Your task to perform on an android device: Empty the shopping cart on bestbuy.com. Search for "macbook air" on bestbuy.com, select the first entry, and add it to the cart. Image 0: 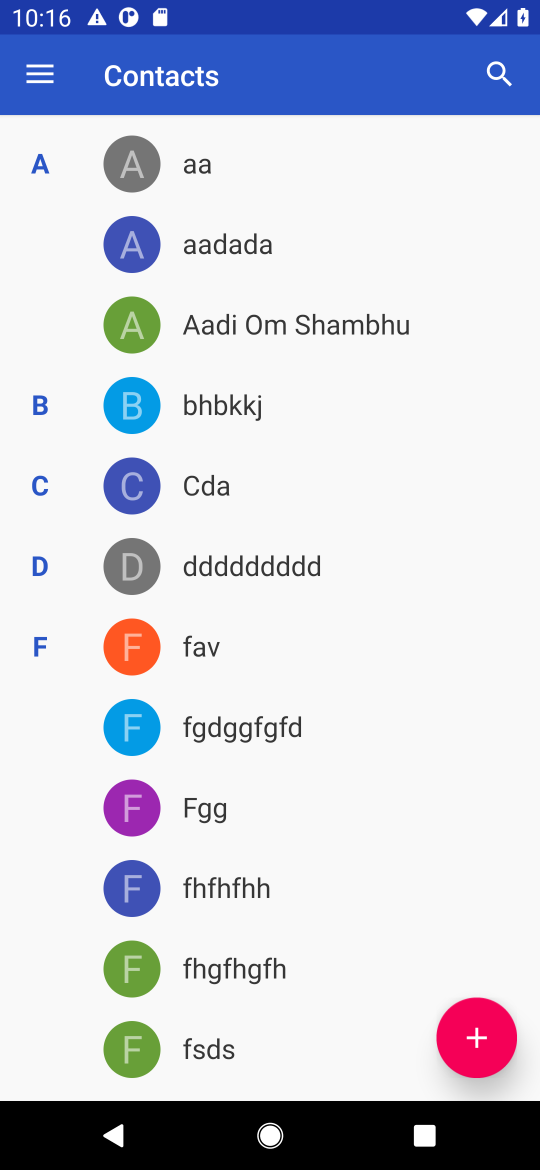
Step 0: press home button
Your task to perform on an android device: Empty the shopping cart on bestbuy.com. Search for "macbook air" on bestbuy.com, select the first entry, and add it to the cart. Image 1: 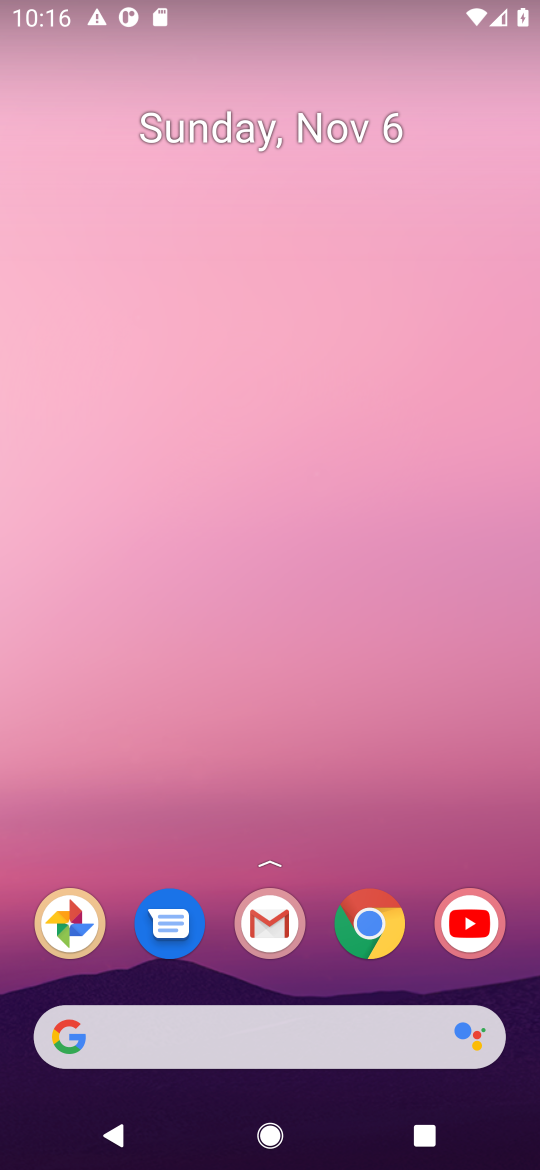
Step 1: click (370, 934)
Your task to perform on an android device: Empty the shopping cart on bestbuy.com. Search for "macbook air" on bestbuy.com, select the first entry, and add it to the cart. Image 2: 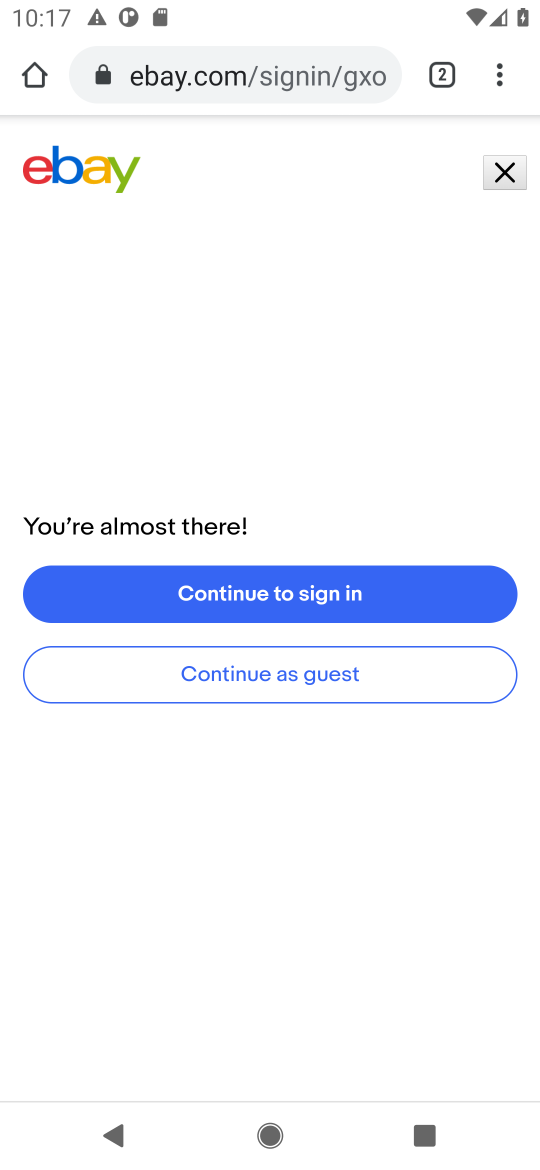
Step 2: click (219, 80)
Your task to perform on an android device: Empty the shopping cart on bestbuy.com. Search for "macbook air" on bestbuy.com, select the first entry, and add it to the cart. Image 3: 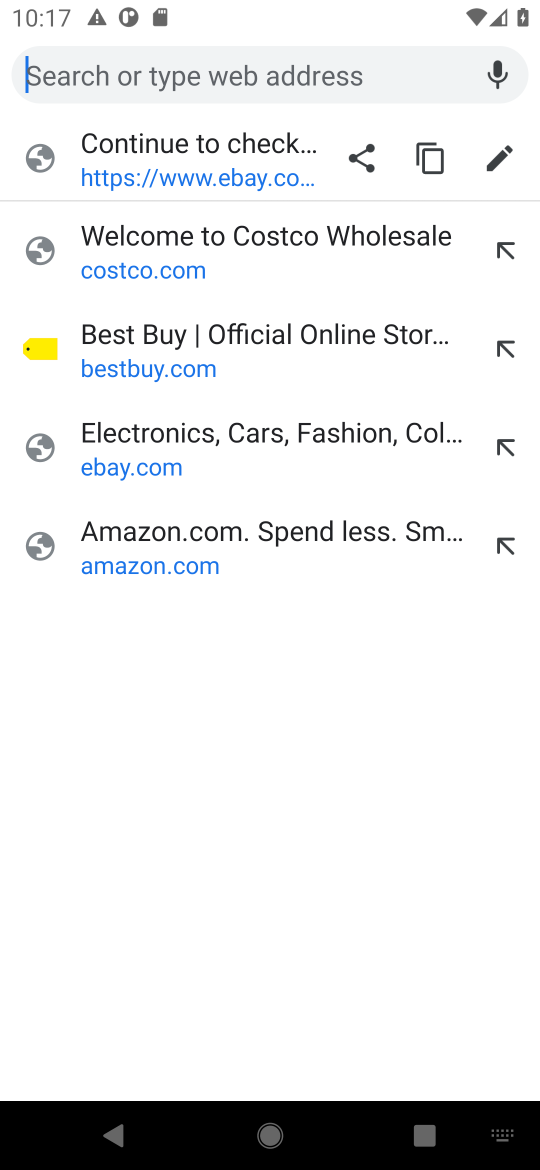
Step 3: type "bestbuy.com"
Your task to perform on an android device: Empty the shopping cart on bestbuy.com. Search for "macbook air" on bestbuy.com, select the first entry, and add it to the cart. Image 4: 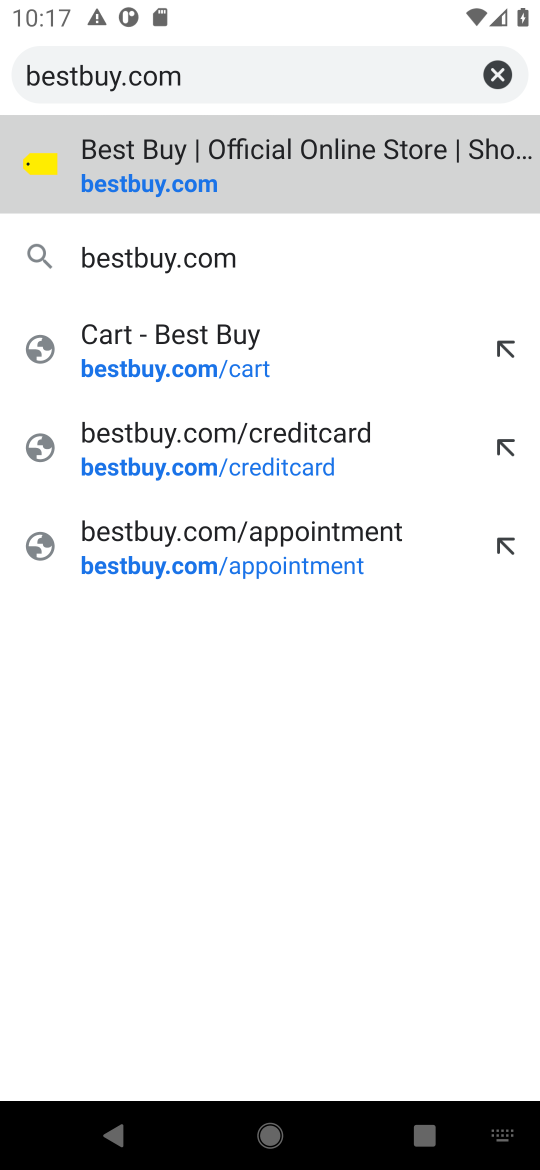
Step 4: click (180, 193)
Your task to perform on an android device: Empty the shopping cart on bestbuy.com. Search for "macbook air" on bestbuy.com, select the first entry, and add it to the cart. Image 5: 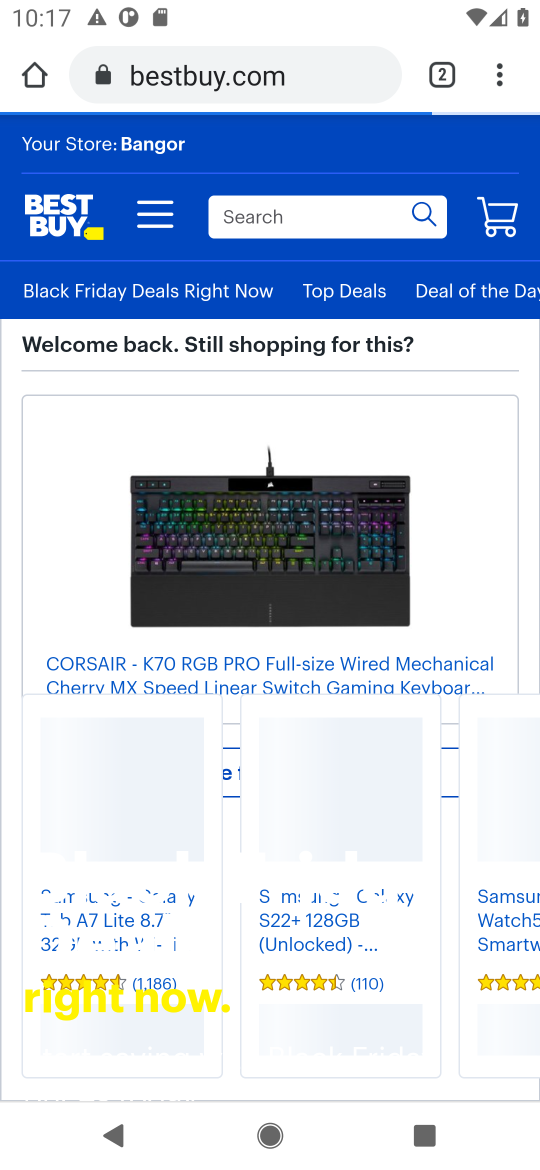
Step 5: click (505, 216)
Your task to perform on an android device: Empty the shopping cart on bestbuy.com. Search for "macbook air" on bestbuy.com, select the first entry, and add it to the cart. Image 6: 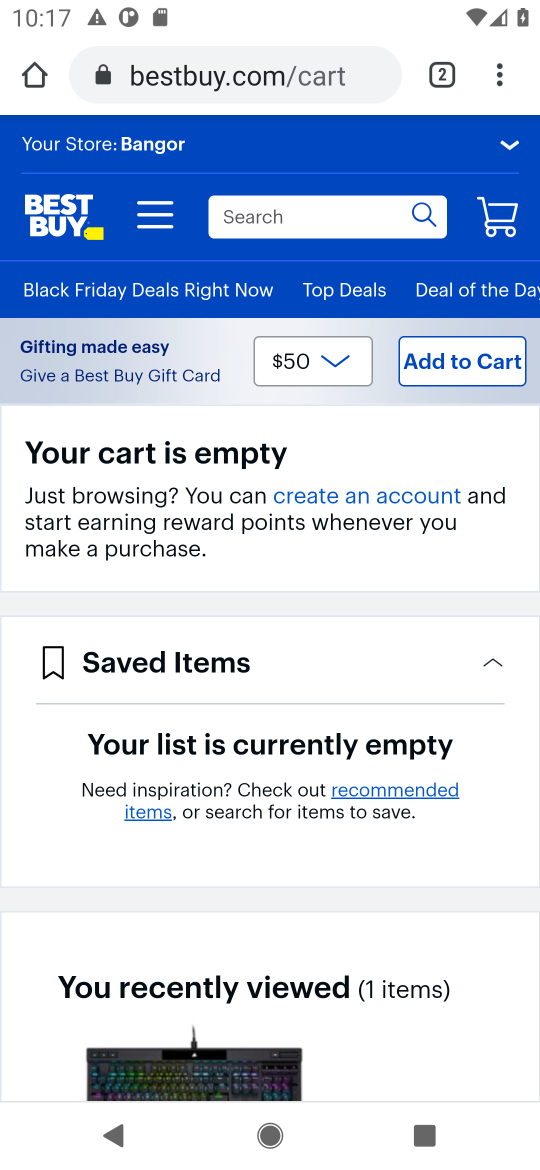
Step 6: click (341, 223)
Your task to perform on an android device: Empty the shopping cart on bestbuy.com. Search for "macbook air" on bestbuy.com, select the first entry, and add it to the cart. Image 7: 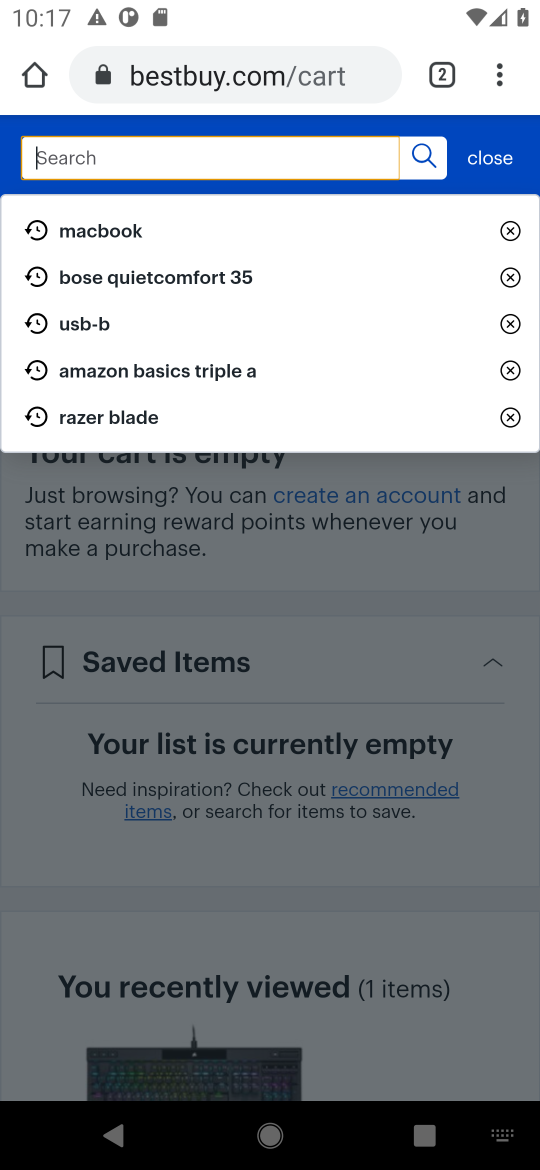
Step 7: type "macbook air"
Your task to perform on an android device: Empty the shopping cart on bestbuy.com. Search for "macbook air" on bestbuy.com, select the first entry, and add it to the cart. Image 8: 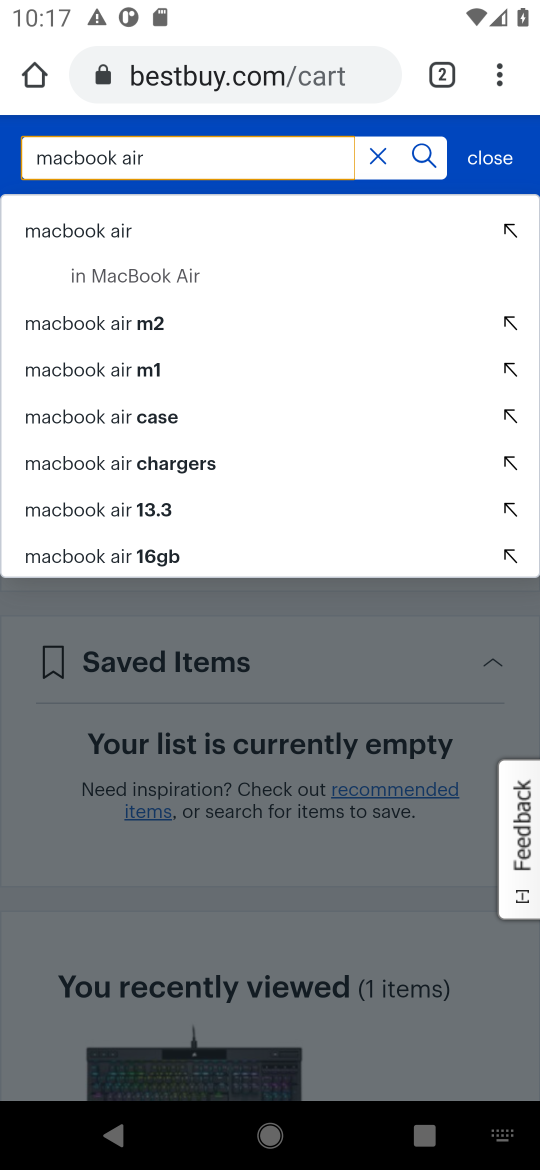
Step 8: click (74, 235)
Your task to perform on an android device: Empty the shopping cart on bestbuy.com. Search for "macbook air" on bestbuy.com, select the first entry, and add it to the cart. Image 9: 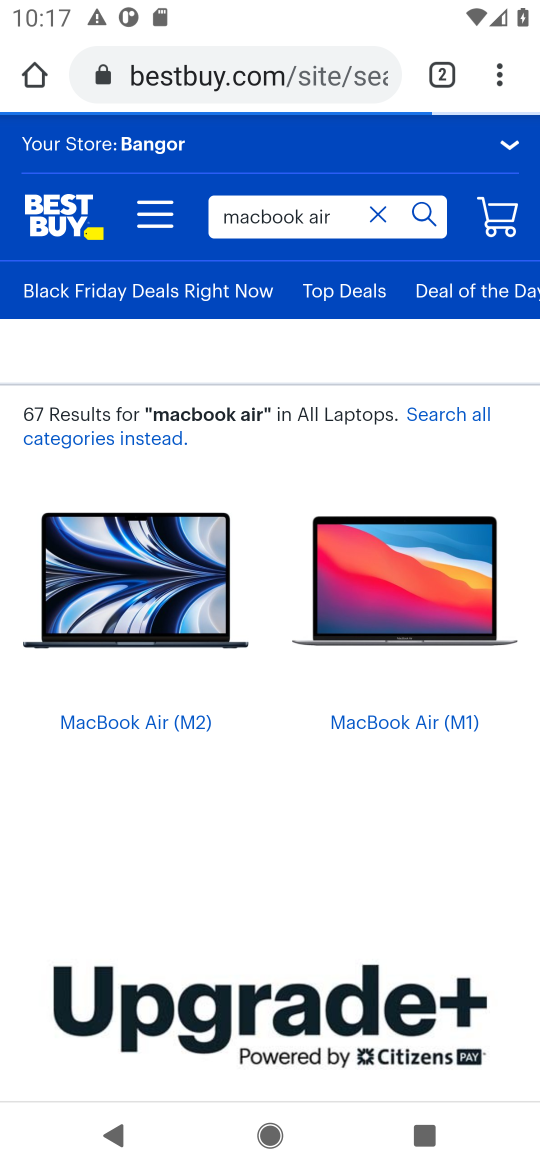
Step 9: click (426, 159)
Your task to perform on an android device: Empty the shopping cart on bestbuy.com. Search for "macbook air" on bestbuy.com, select the first entry, and add it to the cart. Image 10: 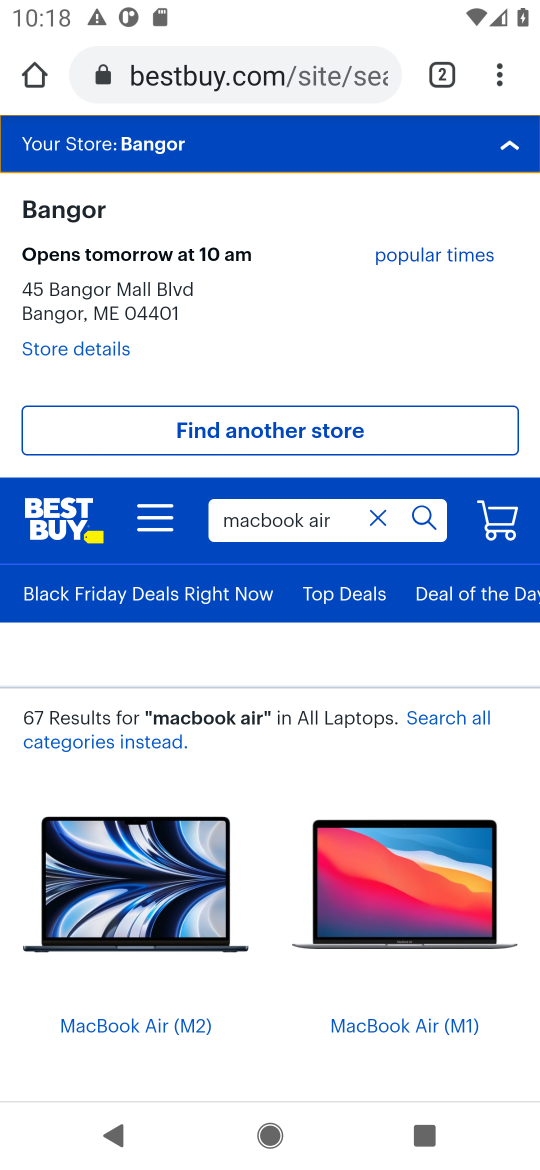
Step 10: click (418, 512)
Your task to perform on an android device: Empty the shopping cart on bestbuy.com. Search for "macbook air" on bestbuy.com, select the first entry, and add it to the cart. Image 11: 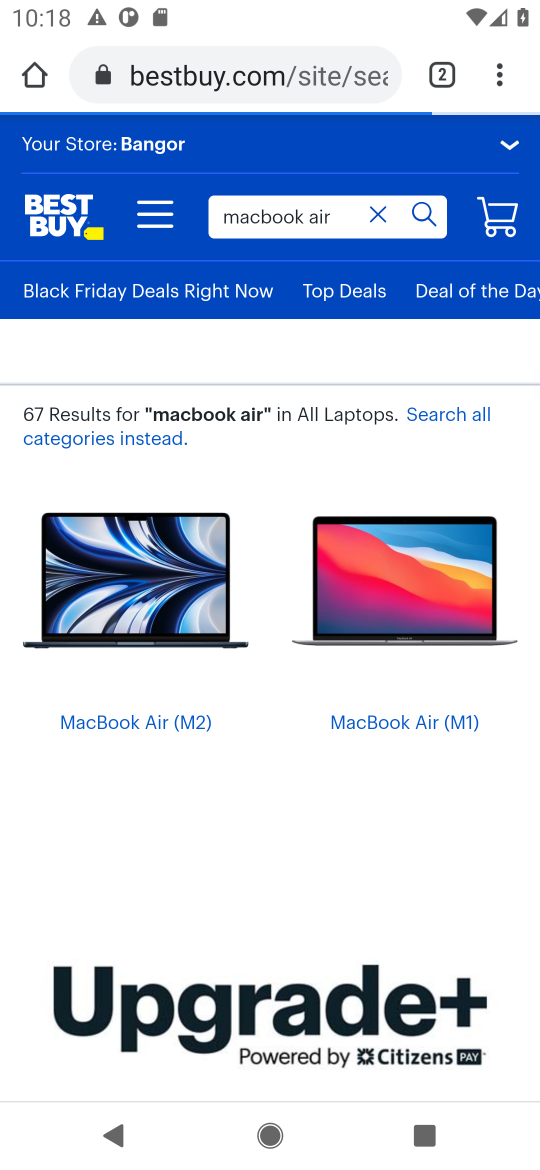
Step 11: drag from (285, 863) to (269, 414)
Your task to perform on an android device: Empty the shopping cart on bestbuy.com. Search for "macbook air" on bestbuy.com, select the first entry, and add it to the cart. Image 12: 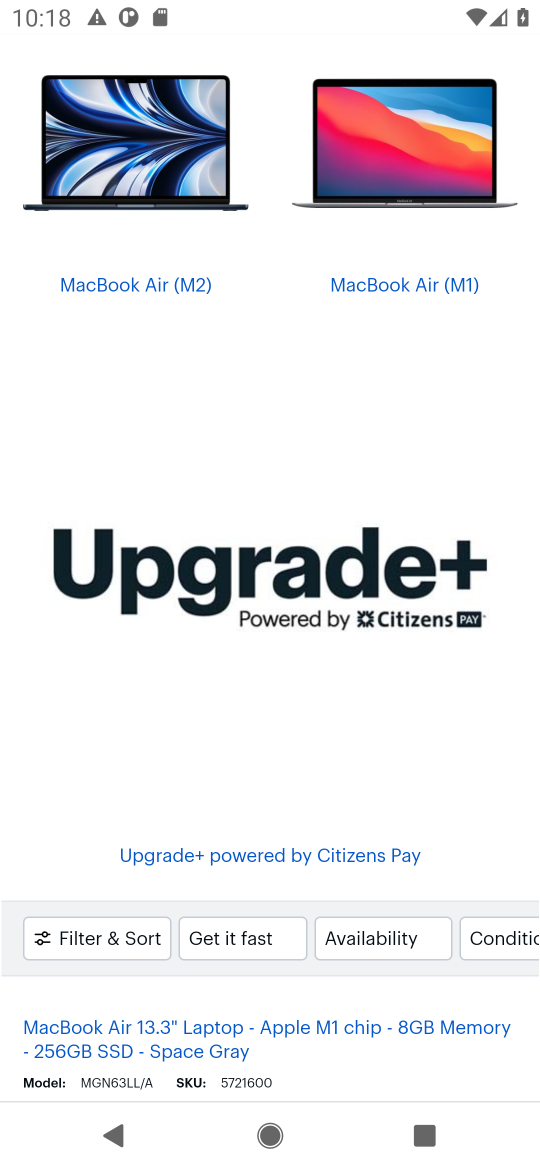
Step 12: drag from (268, 932) to (254, 362)
Your task to perform on an android device: Empty the shopping cart on bestbuy.com. Search for "macbook air" on bestbuy.com, select the first entry, and add it to the cart. Image 13: 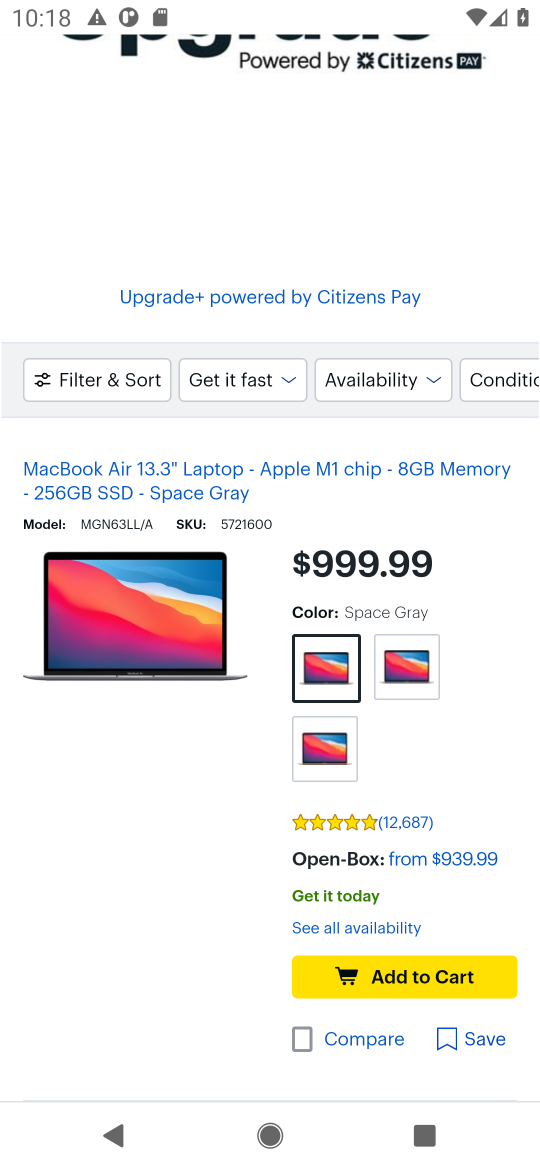
Step 13: click (424, 975)
Your task to perform on an android device: Empty the shopping cart on bestbuy.com. Search for "macbook air" on bestbuy.com, select the first entry, and add it to the cart. Image 14: 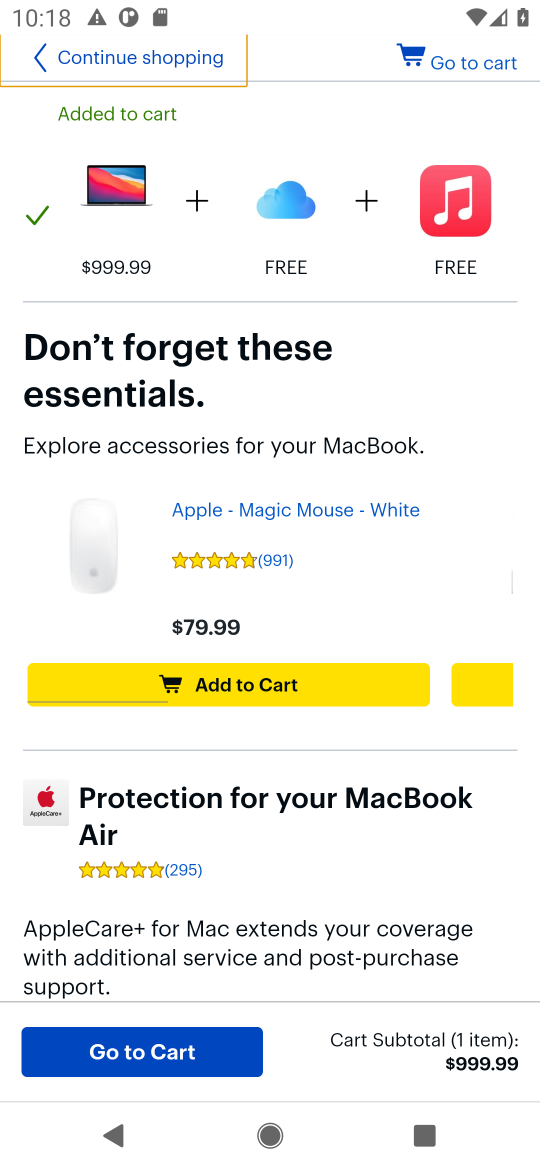
Step 14: task complete